Your task to perform on an android device: change the upload size in google photos Image 0: 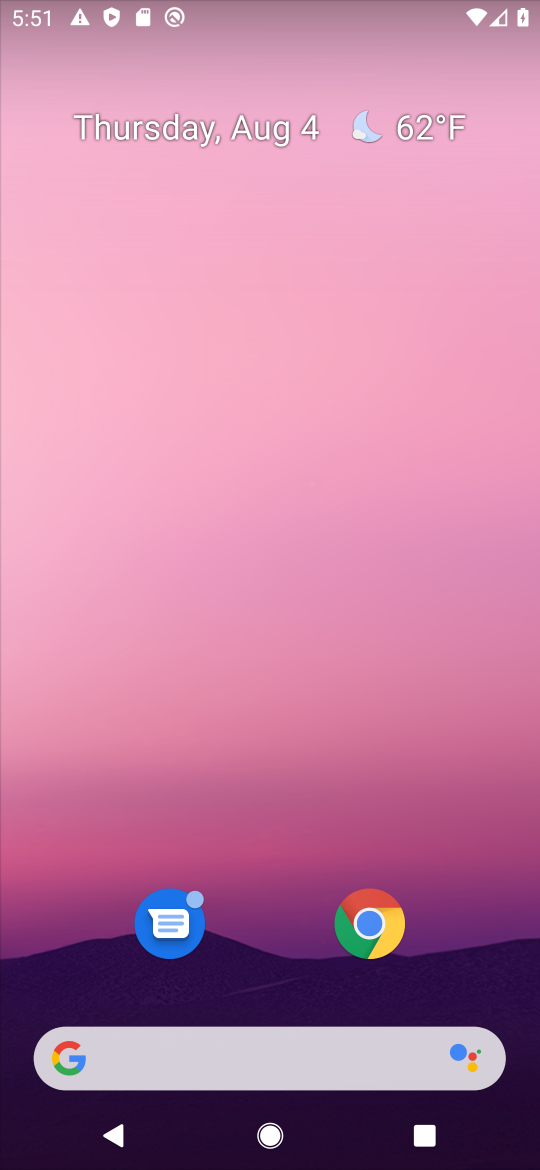
Step 0: press home button
Your task to perform on an android device: change the upload size in google photos Image 1: 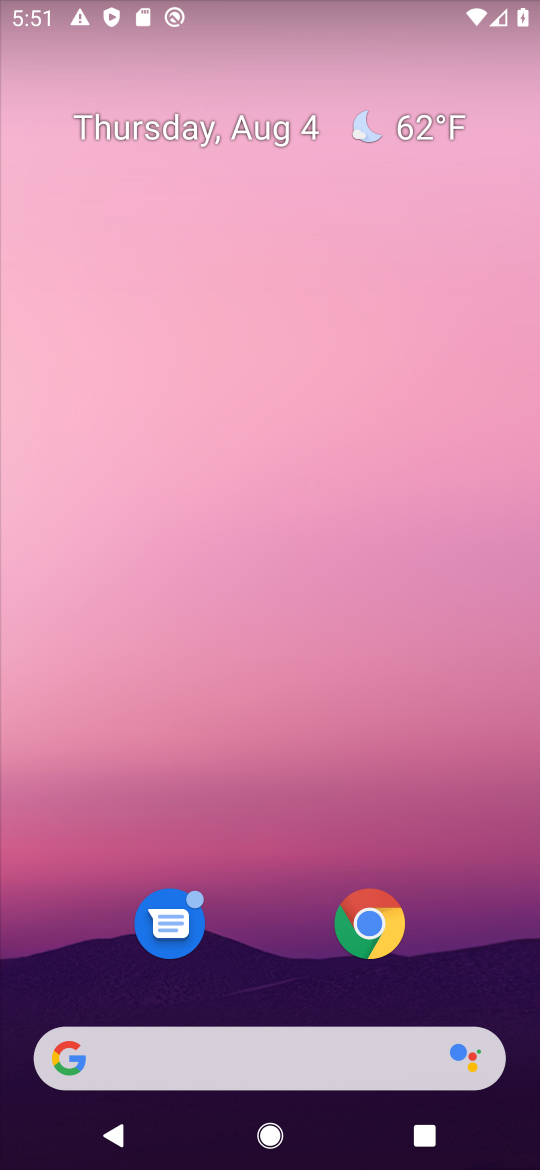
Step 1: drag from (488, 921) to (387, 295)
Your task to perform on an android device: change the upload size in google photos Image 2: 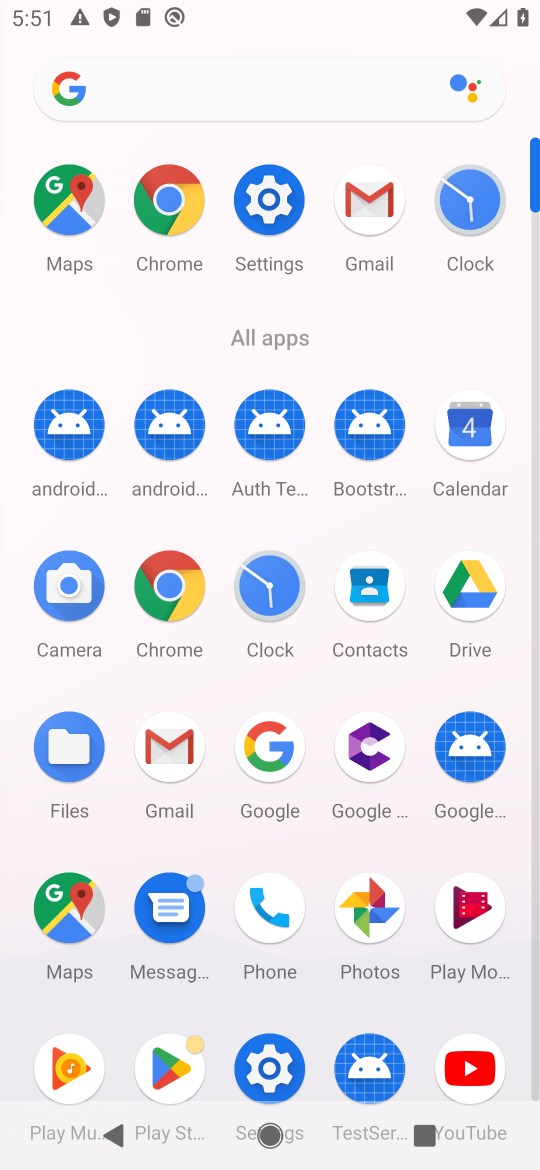
Step 2: click (363, 907)
Your task to perform on an android device: change the upload size in google photos Image 3: 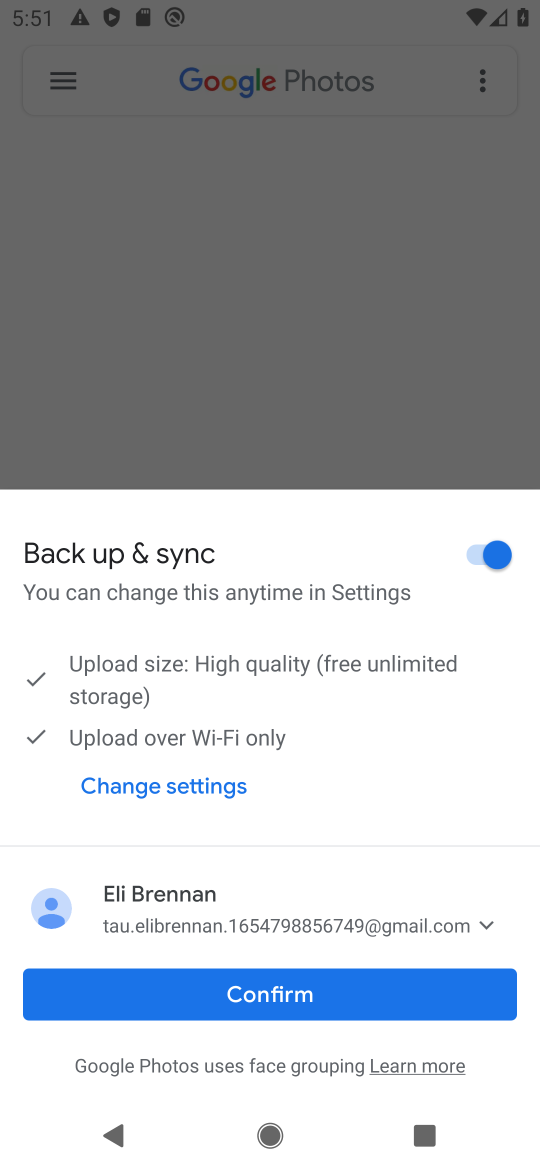
Step 3: click (299, 476)
Your task to perform on an android device: change the upload size in google photos Image 4: 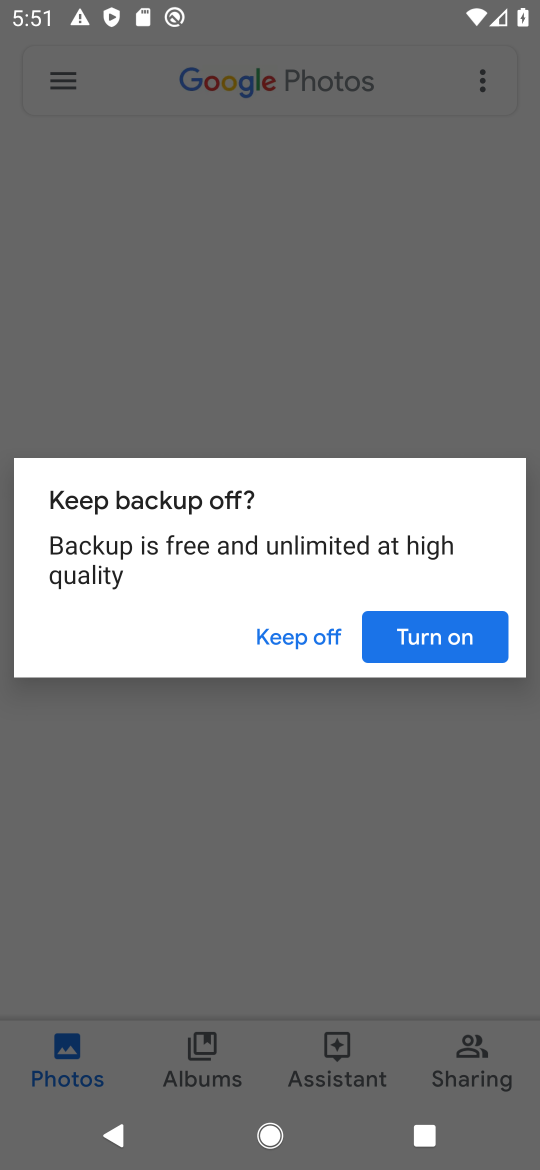
Step 4: click (64, 86)
Your task to perform on an android device: change the upload size in google photos Image 5: 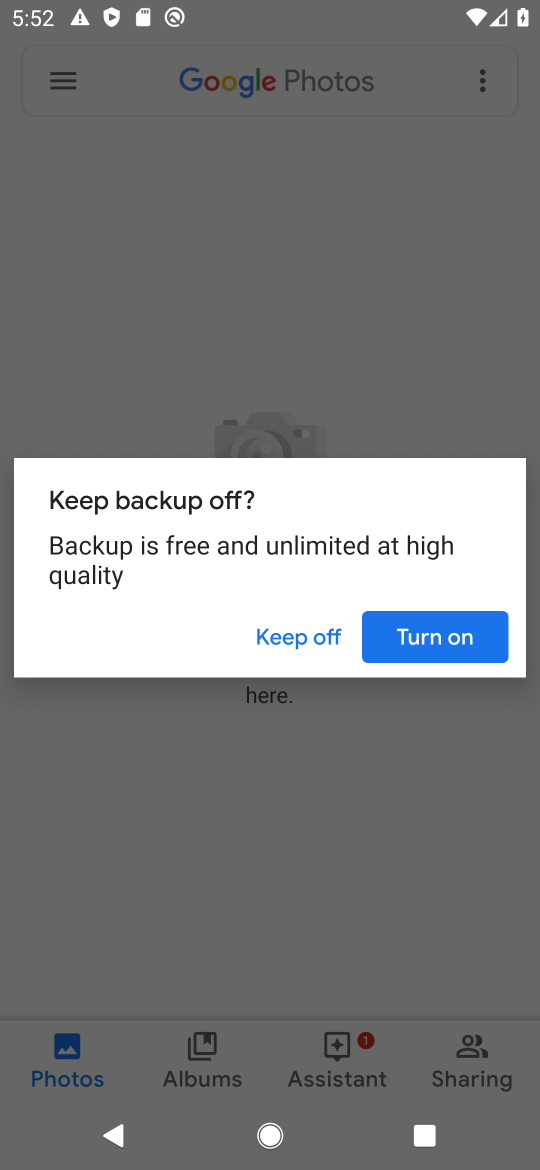
Step 5: click (484, 626)
Your task to perform on an android device: change the upload size in google photos Image 6: 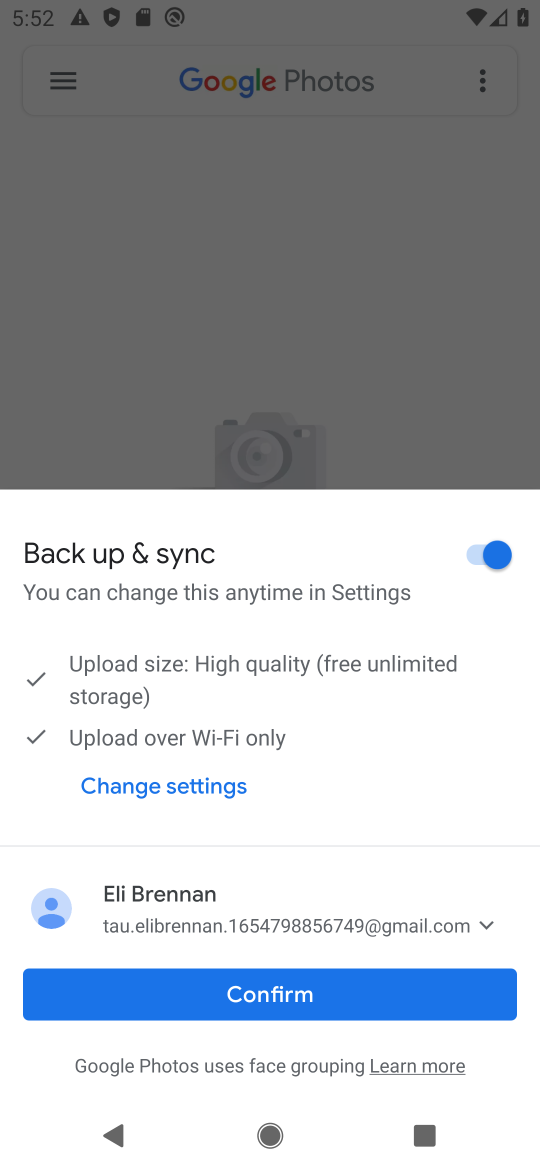
Step 6: click (377, 988)
Your task to perform on an android device: change the upload size in google photos Image 7: 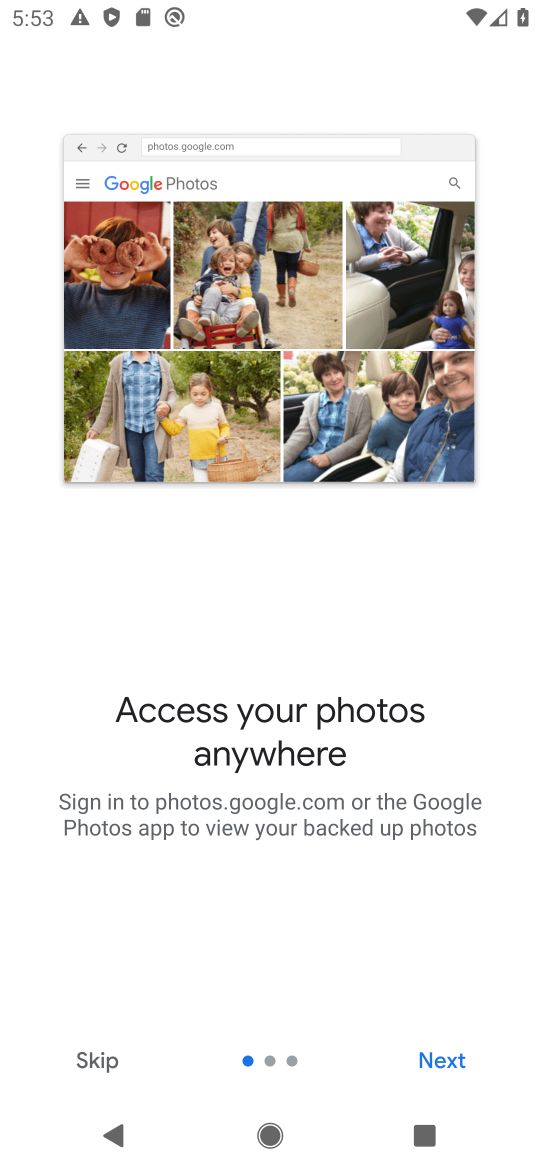
Step 7: click (85, 1049)
Your task to perform on an android device: change the upload size in google photos Image 8: 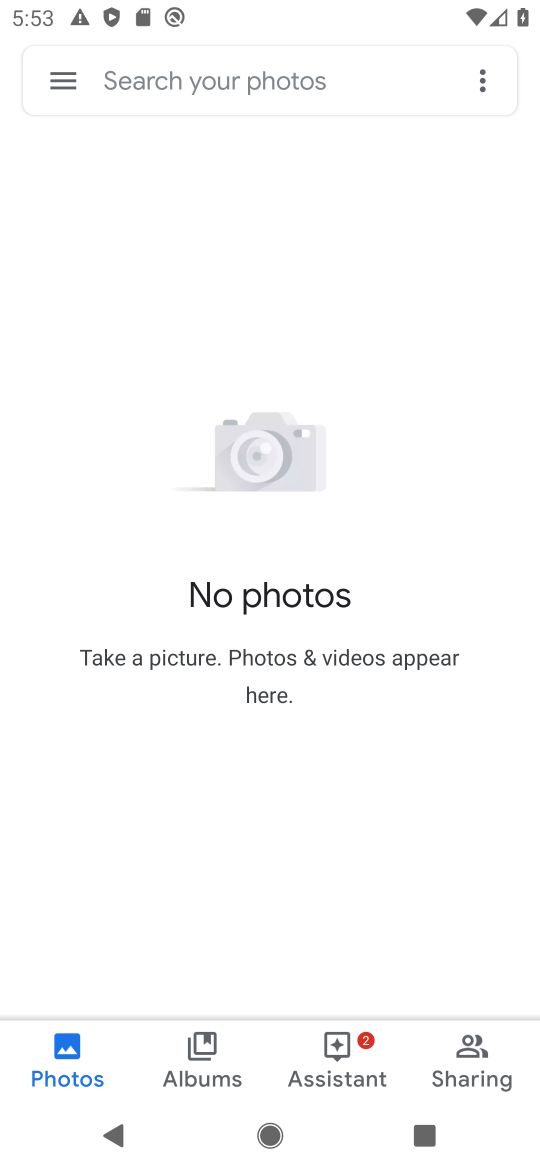
Step 8: click (69, 89)
Your task to perform on an android device: change the upload size in google photos Image 9: 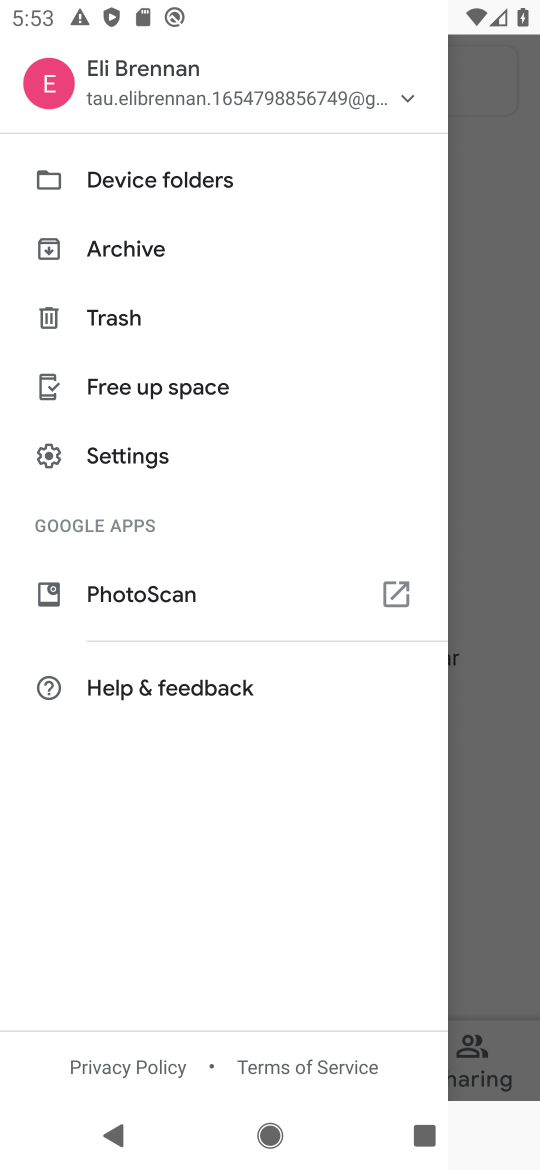
Step 9: click (115, 461)
Your task to perform on an android device: change the upload size in google photos Image 10: 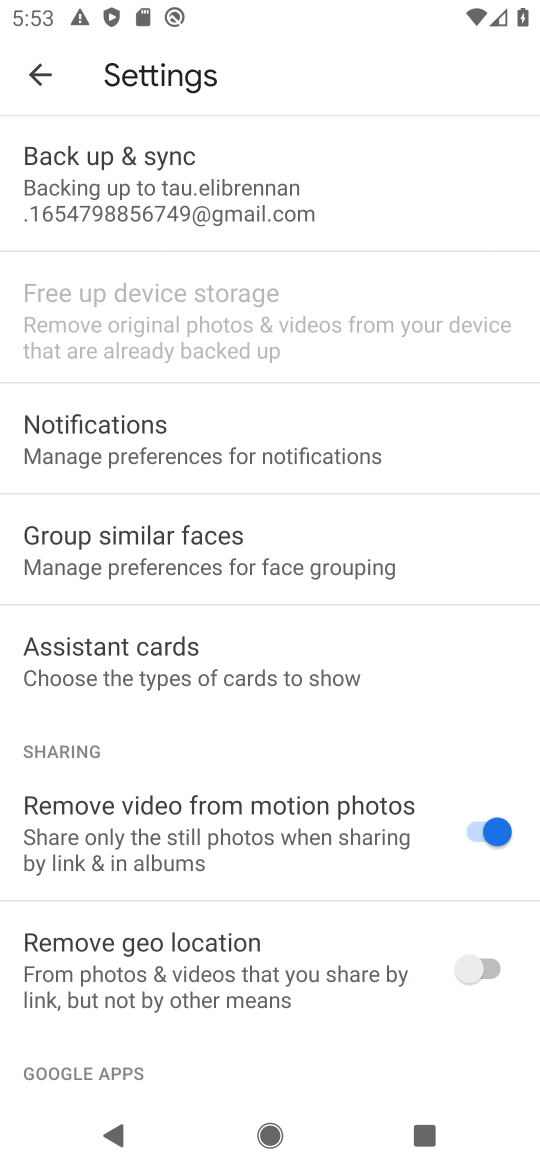
Step 10: click (165, 210)
Your task to perform on an android device: change the upload size in google photos Image 11: 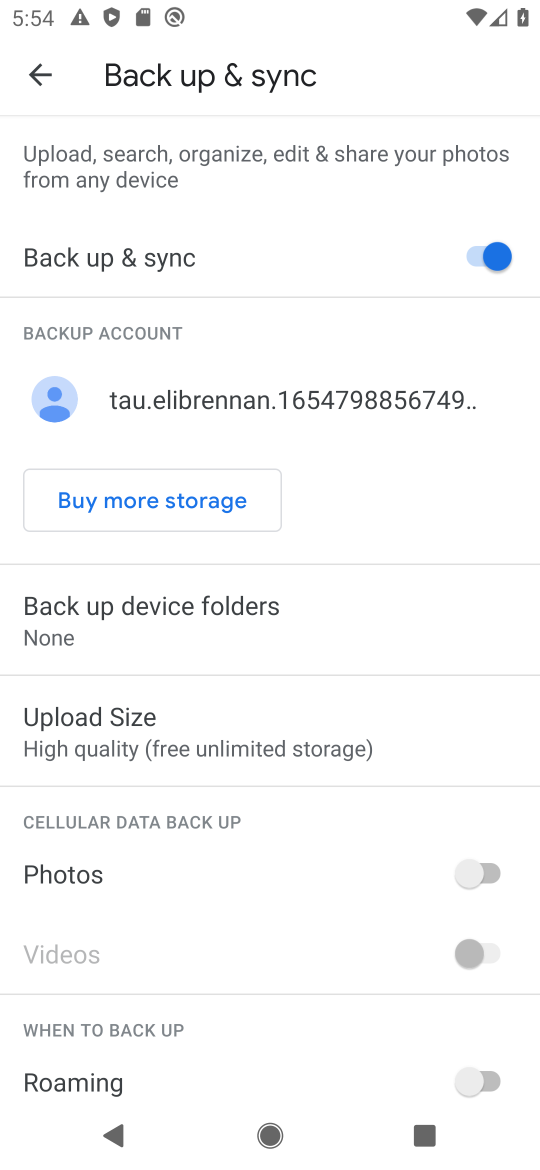
Step 11: drag from (490, 791) to (414, 586)
Your task to perform on an android device: change the upload size in google photos Image 12: 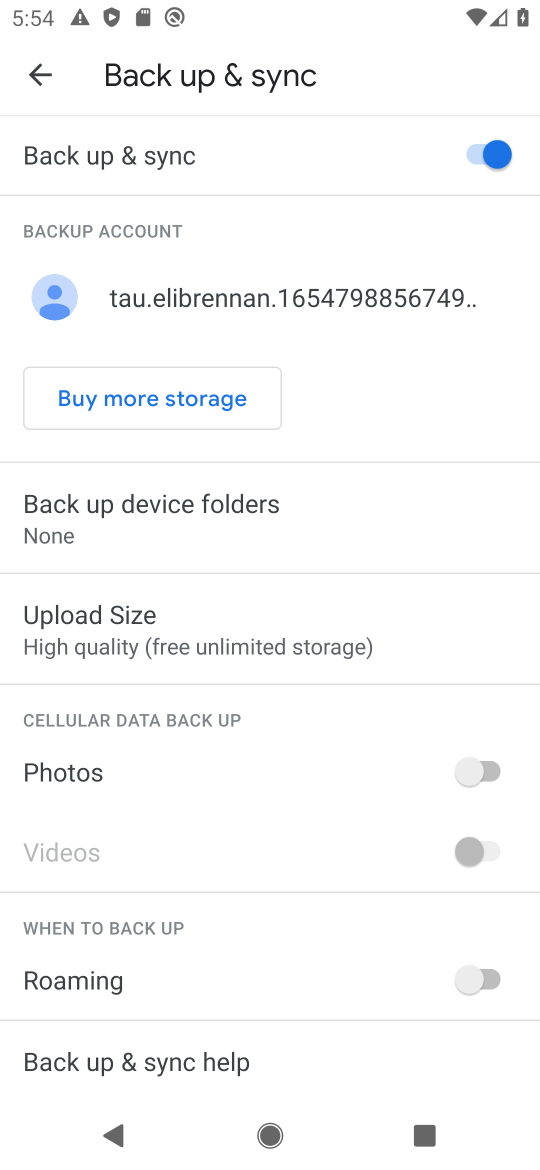
Step 12: click (119, 633)
Your task to perform on an android device: change the upload size in google photos Image 13: 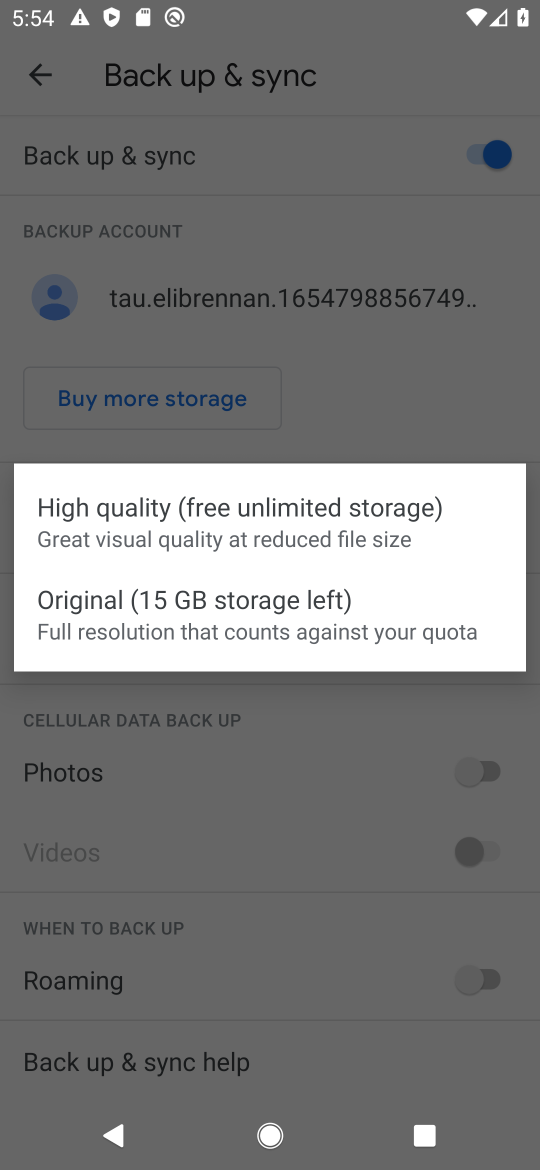
Step 13: click (299, 603)
Your task to perform on an android device: change the upload size in google photos Image 14: 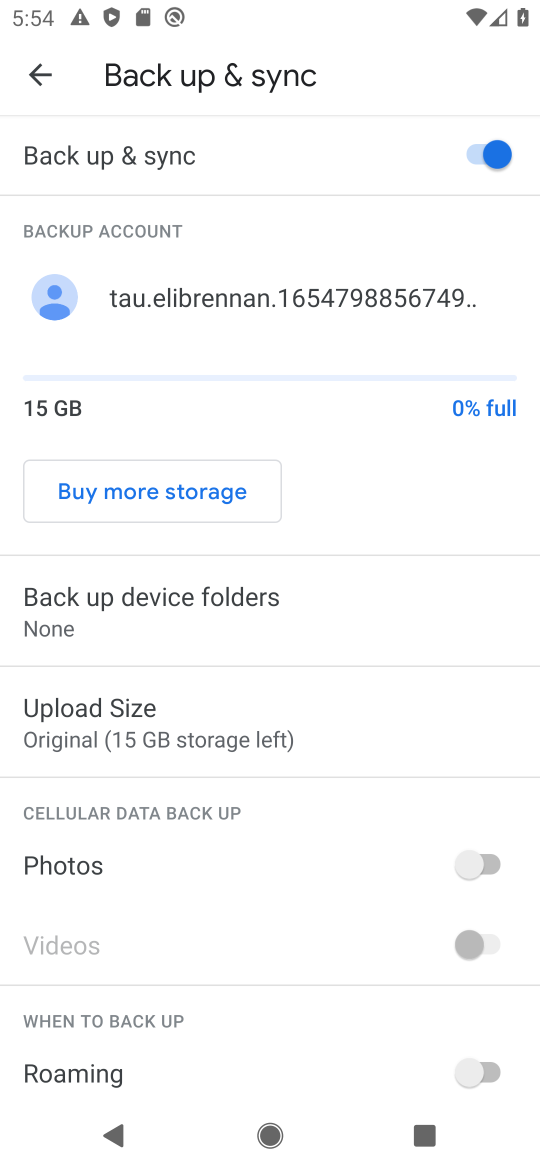
Step 14: task complete